Your task to perform on an android device: Go to eBay Image 0: 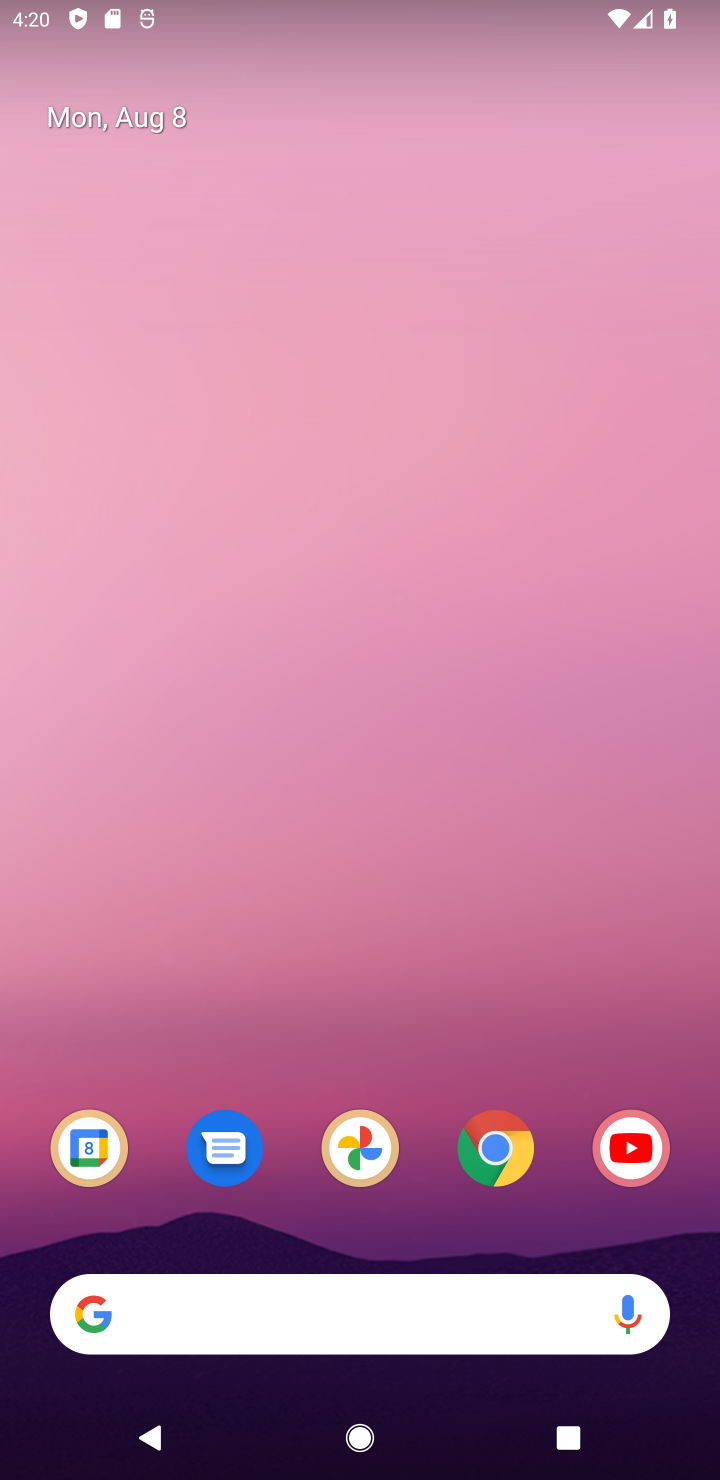
Step 0: drag from (344, 1185) to (254, 2)
Your task to perform on an android device: Go to eBay Image 1: 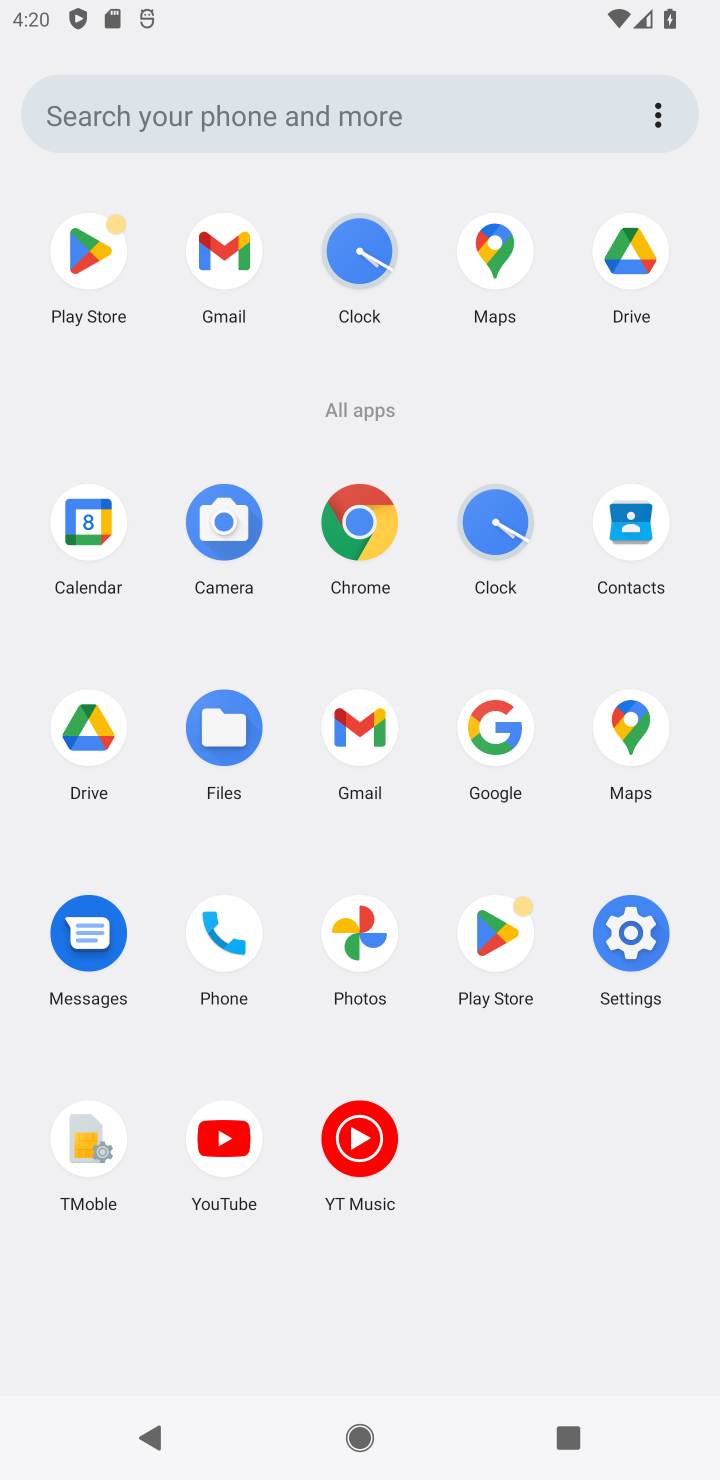
Step 1: click (357, 518)
Your task to perform on an android device: Go to eBay Image 2: 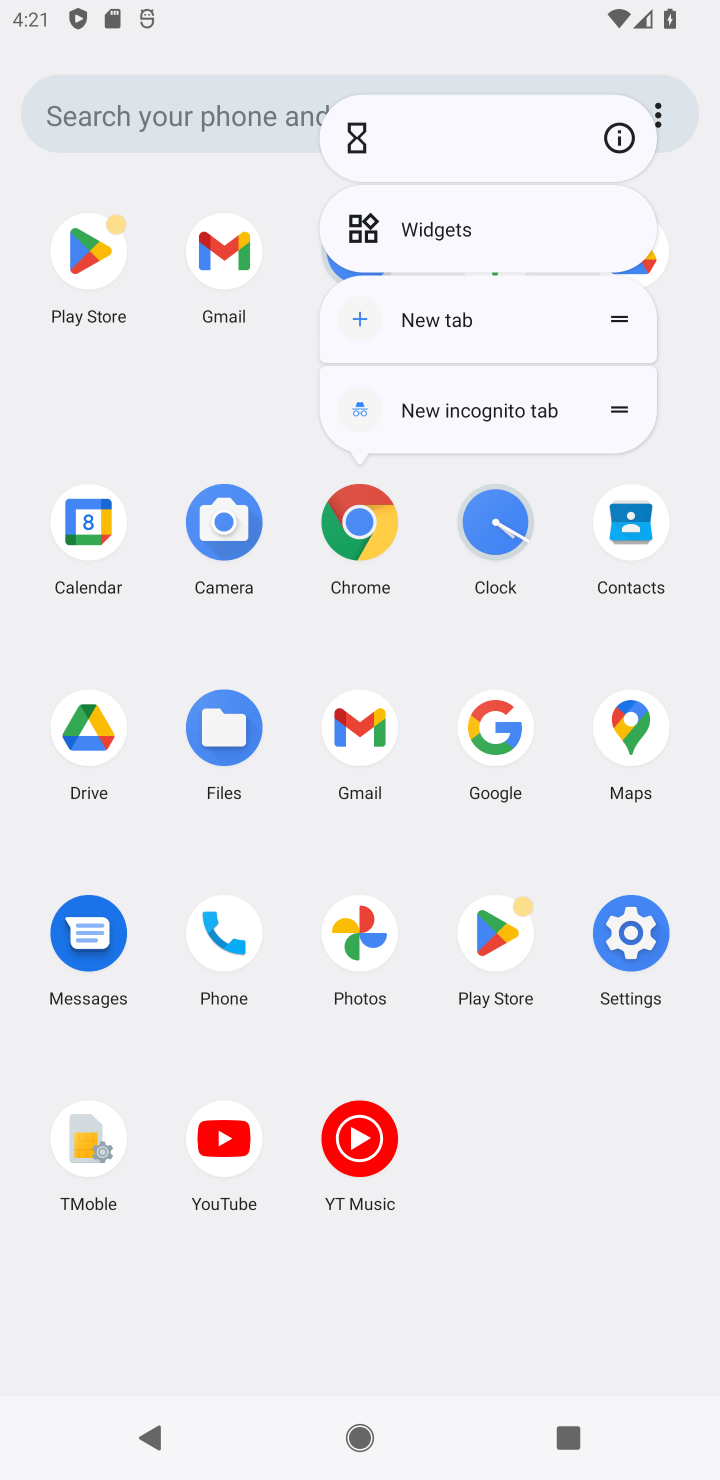
Step 2: click (353, 562)
Your task to perform on an android device: Go to eBay Image 3: 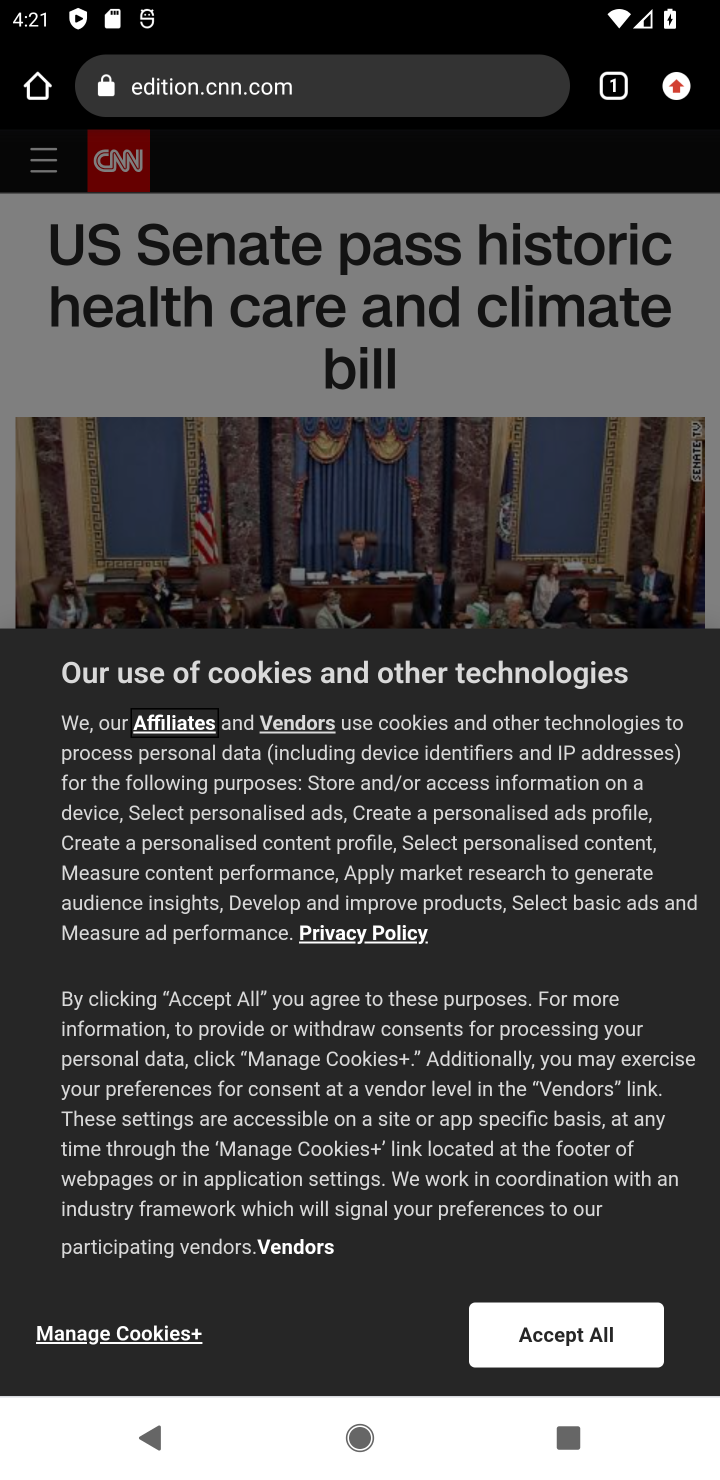
Step 3: click (410, 53)
Your task to perform on an android device: Go to eBay Image 4: 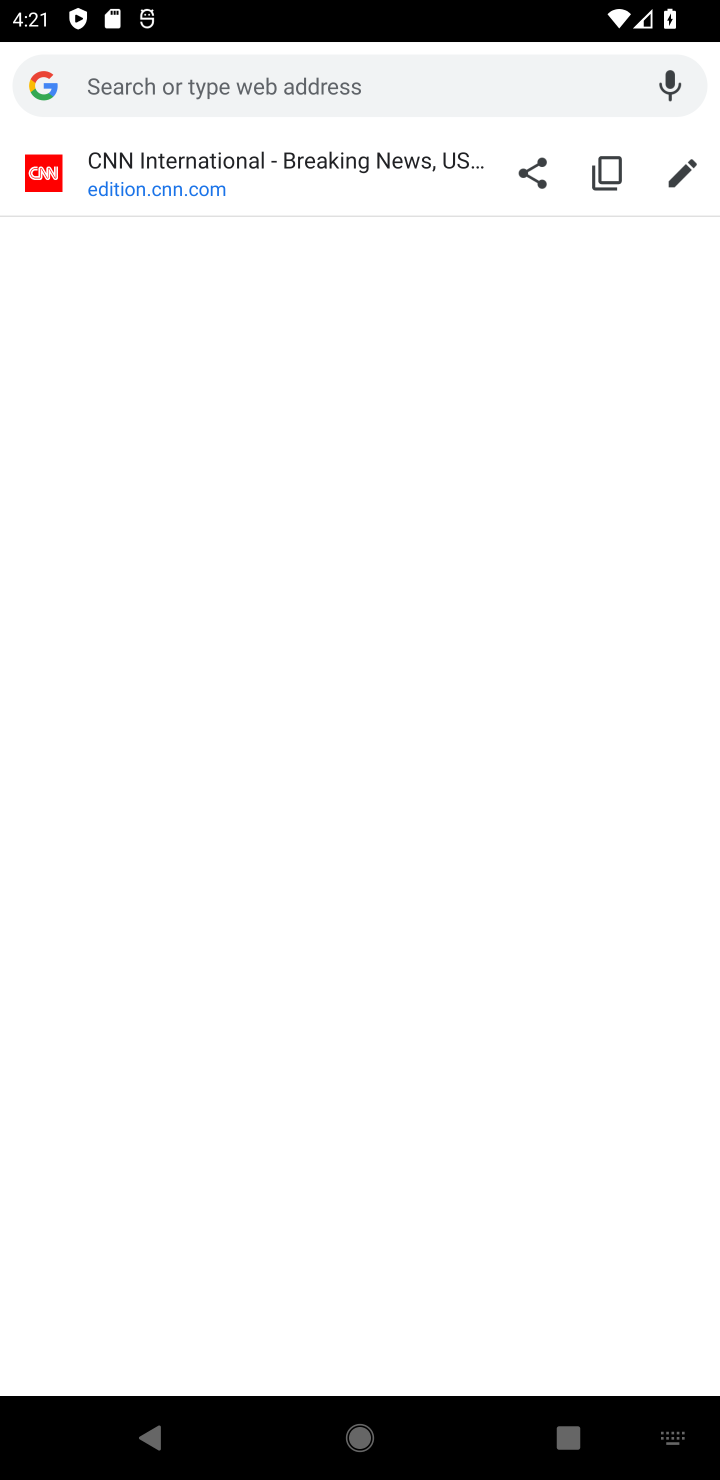
Step 4: type "eBay"
Your task to perform on an android device: Go to eBay Image 5: 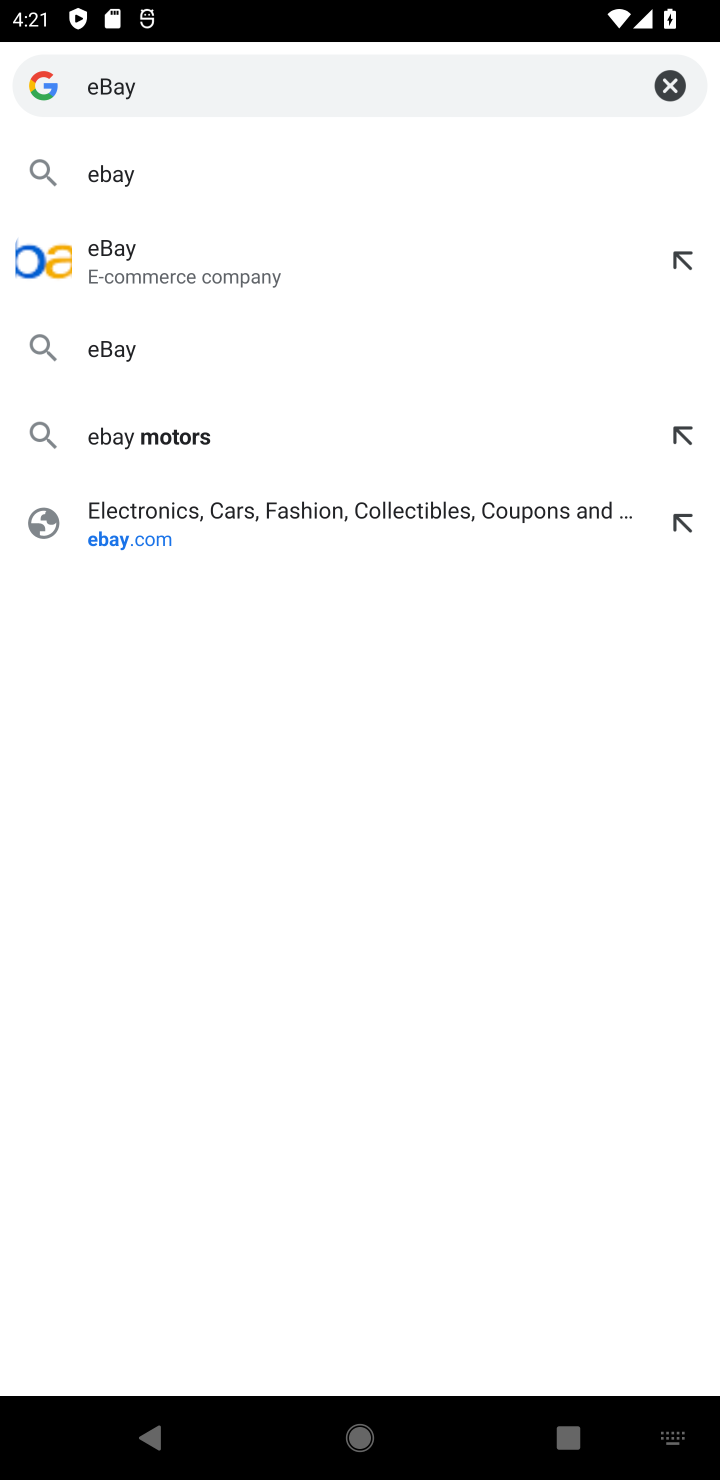
Step 5: click (101, 174)
Your task to perform on an android device: Go to eBay Image 6: 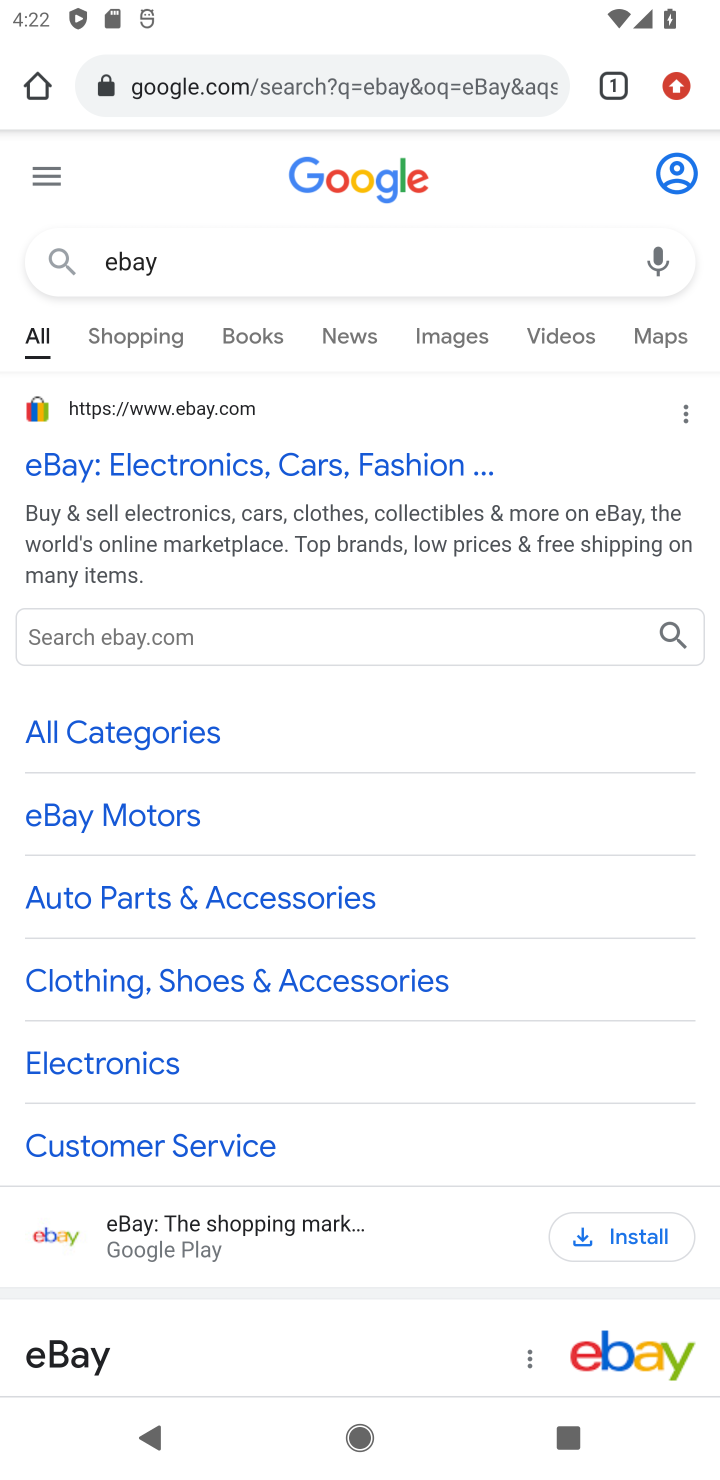
Step 6: click (94, 463)
Your task to perform on an android device: Go to eBay Image 7: 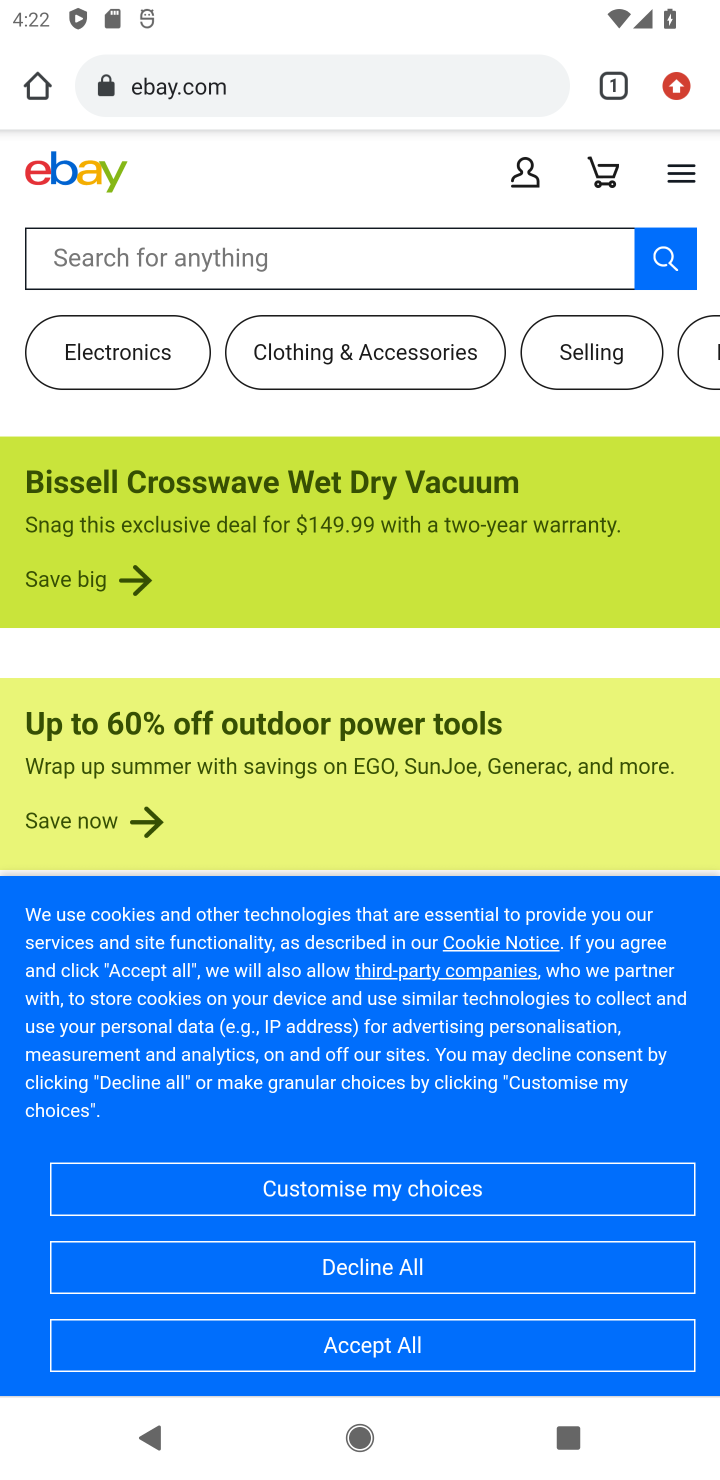
Step 7: task complete